Your task to perform on an android device: choose inbox layout in the gmail app Image 0: 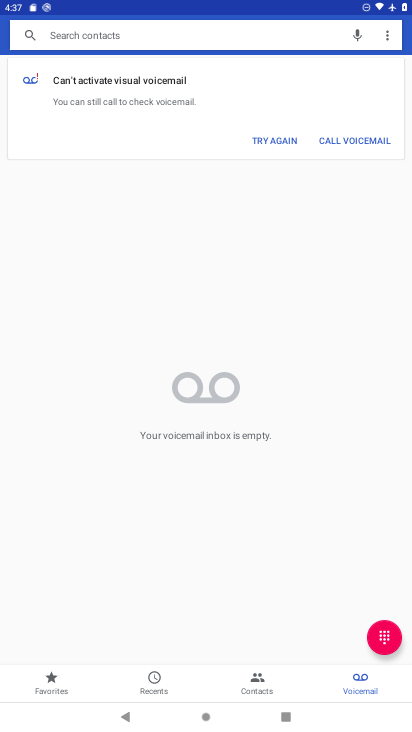
Step 0: press home button
Your task to perform on an android device: choose inbox layout in the gmail app Image 1: 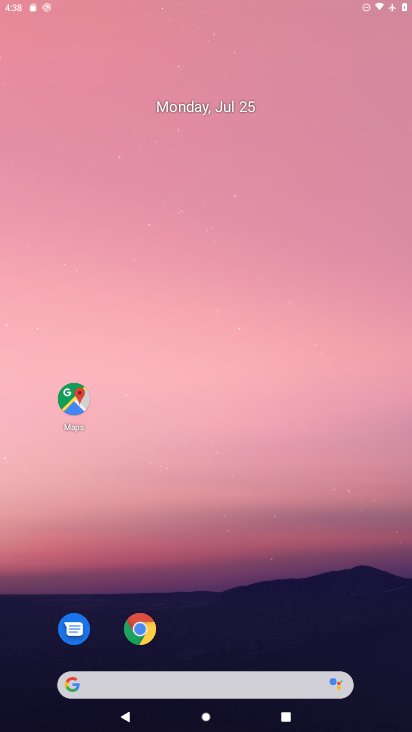
Step 1: drag from (237, 677) to (200, 1)
Your task to perform on an android device: choose inbox layout in the gmail app Image 2: 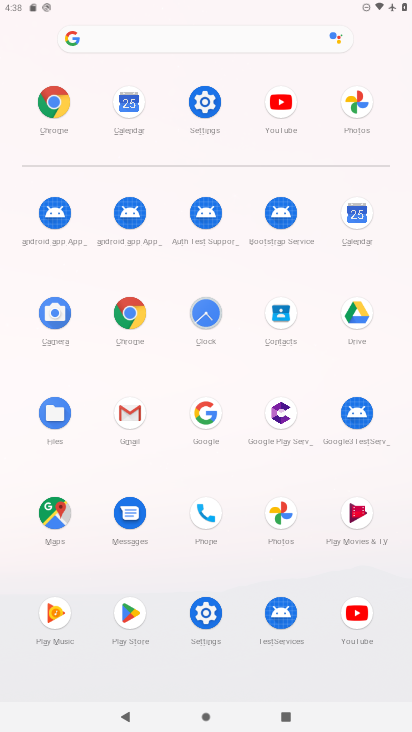
Step 2: click (133, 403)
Your task to perform on an android device: choose inbox layout in the gmail app Image 3: 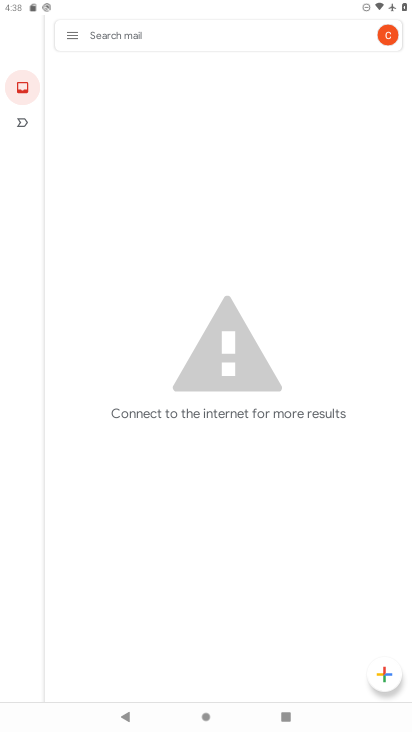
Step 3: click (69, 28)
Your task to perform on an android device: choose inbox layout in the gmail app Image 4: 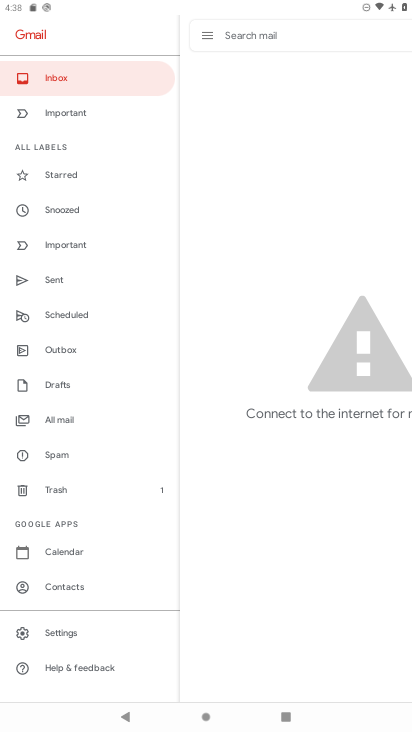
Step 4: click (73, 634)
Your task to perform on an android device: choose inbox layout in the gmail app Image 5: 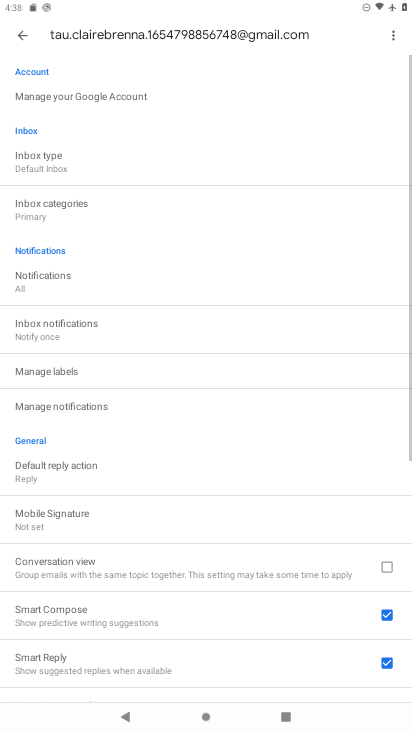
Step 5: click (70, 171)
Your task to perform on an android device: choose inbox layout in the gmail app Image 6: 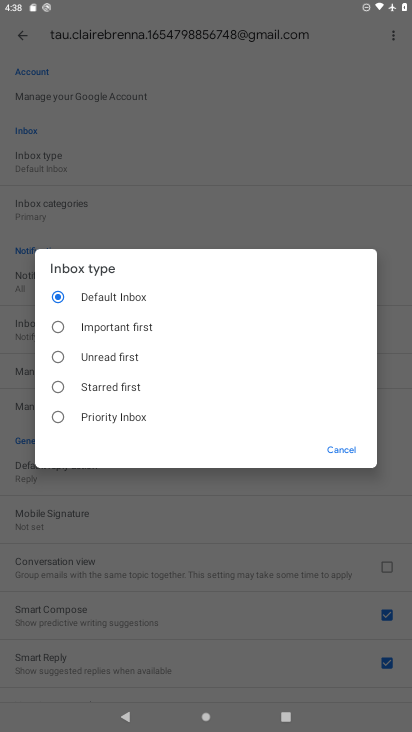
Step 6: click (62, 332)
Your task to perform on an android device: choose inbox layout in the gmail app Image 7: 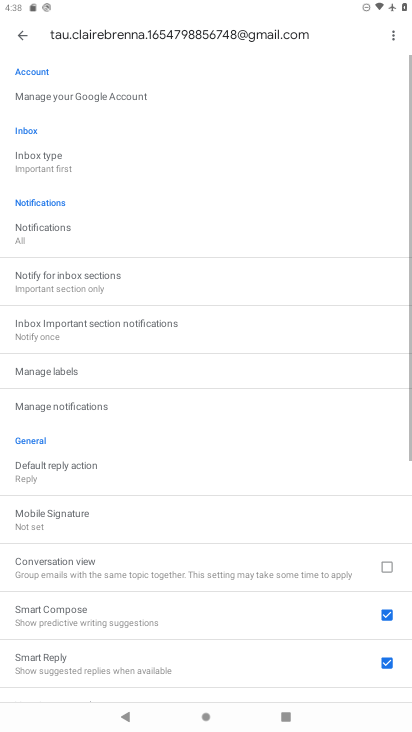
Step 7: task complete